Your task to perform on an android device: choose inbox layout in the gmail app Image 0: 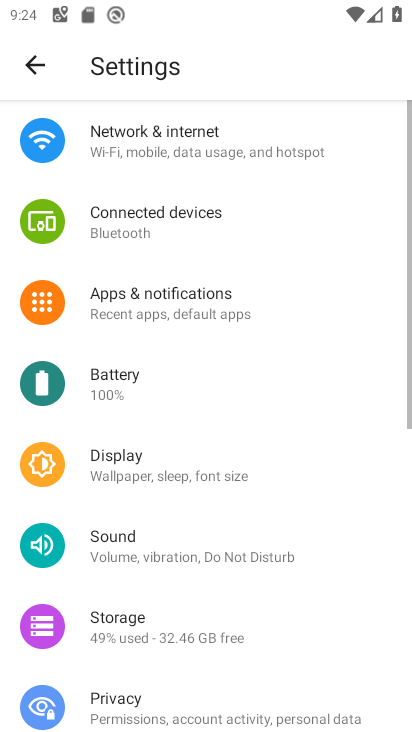
Step 0: press home button
Your task to perform on an android device: choose inbox layout in the gmail app Image 1: 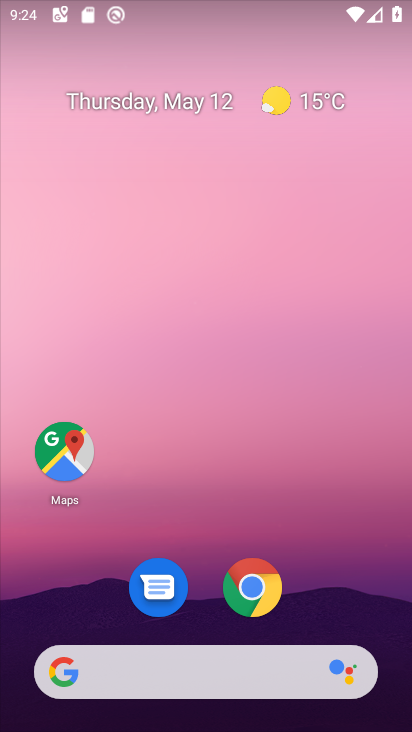
Step 1: drag from (344, 596) to (313, 256)
Your task to perform on an android device: choose inbox layout in the gmail app Image 2: 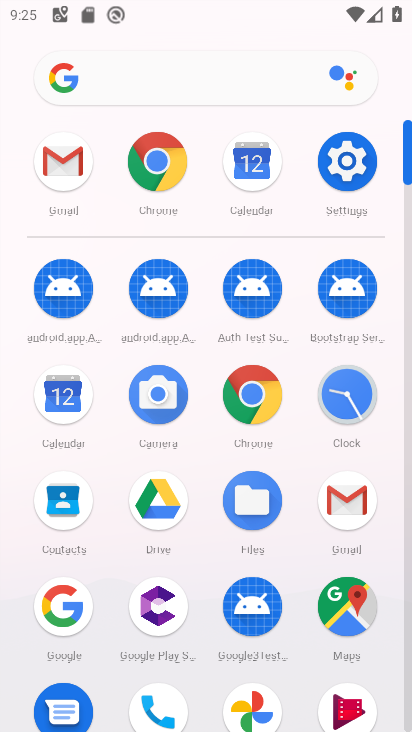
Step 2: click (357, 517)
Your task to perform on an android device: choose inbox layout in the gmail app Image 3: 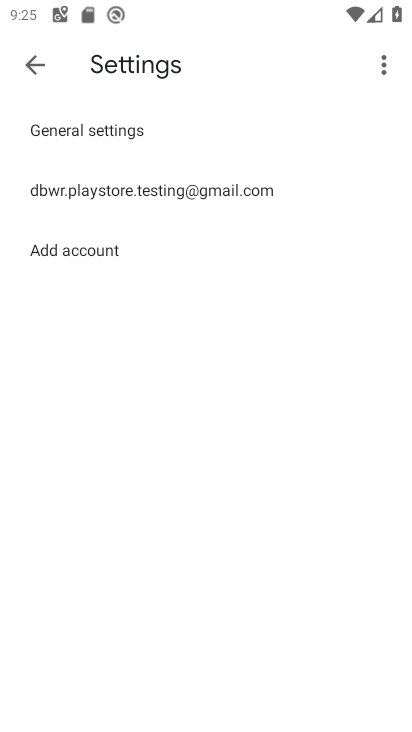
Step 3: task complete